Your task to perform on an android device: set an alarm Image 0: 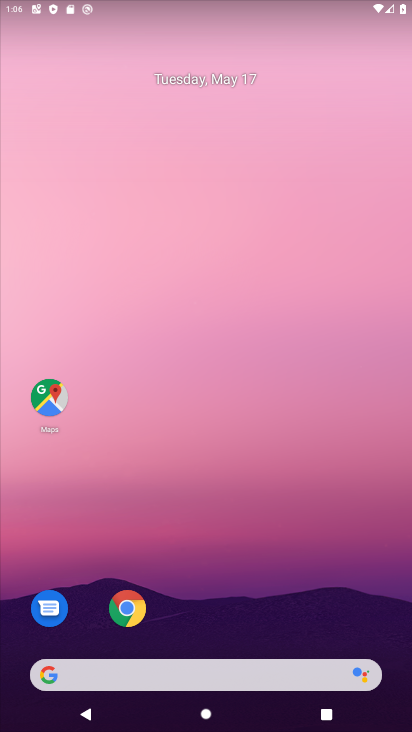
Step 0: drag from (223, 628) to (204, 139)
Your task to perform on an android device: set an alarm Image 1: 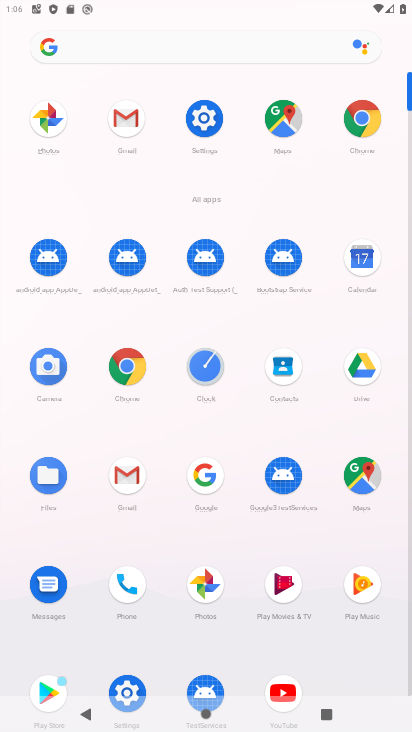
Step 1: click (210, 365)
Your task to perform on an android device: set an alarm Image 2: 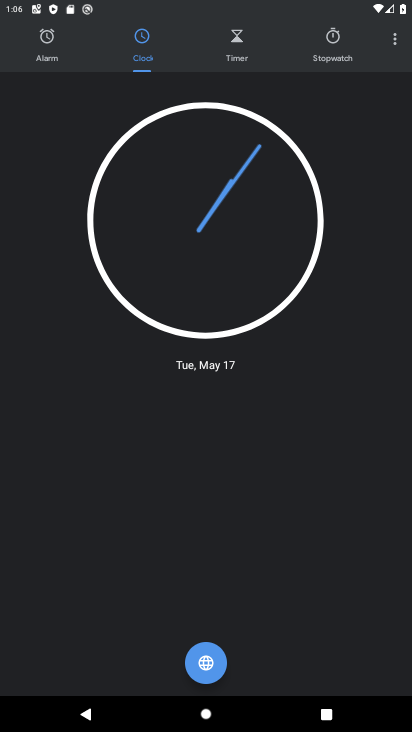
Step 2: click (64, 53)
Your task to perform on an android device: set an alarm Image 3: 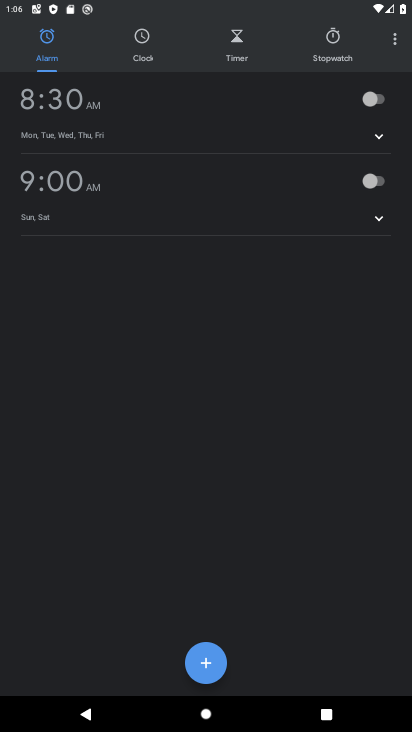
Step 3: click (379, 108)
Your task to perform on an android device: set an alarm Image 4: 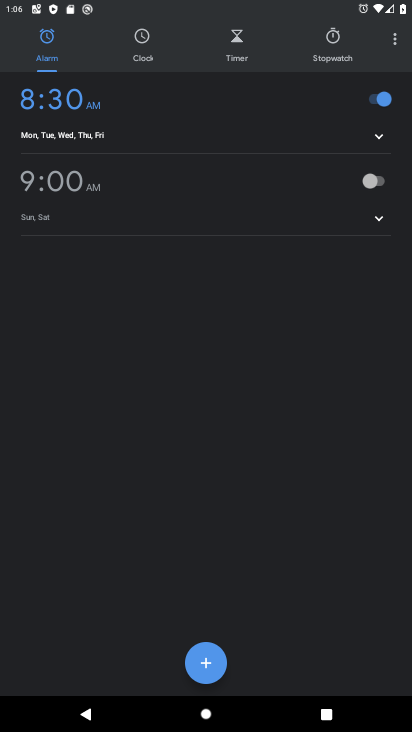
Step 4: task complete